Your task to perform on an android device: Go to Google maps Image 0: 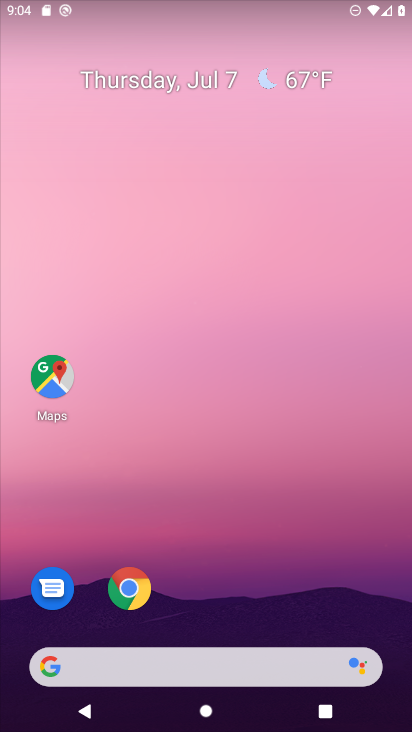
Step 0: click (53, 379)
Your task to perform on an android device: Go to Google maps Image 1: 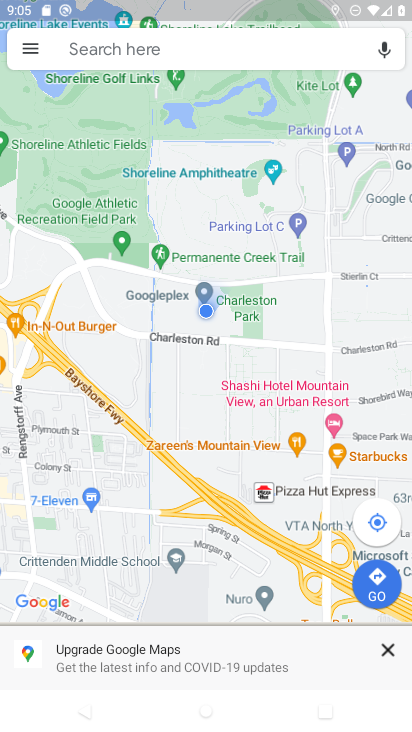
Step 1: task complete